Your task to perform on an android device: Empty the shopping cart on walmart. Image 0: 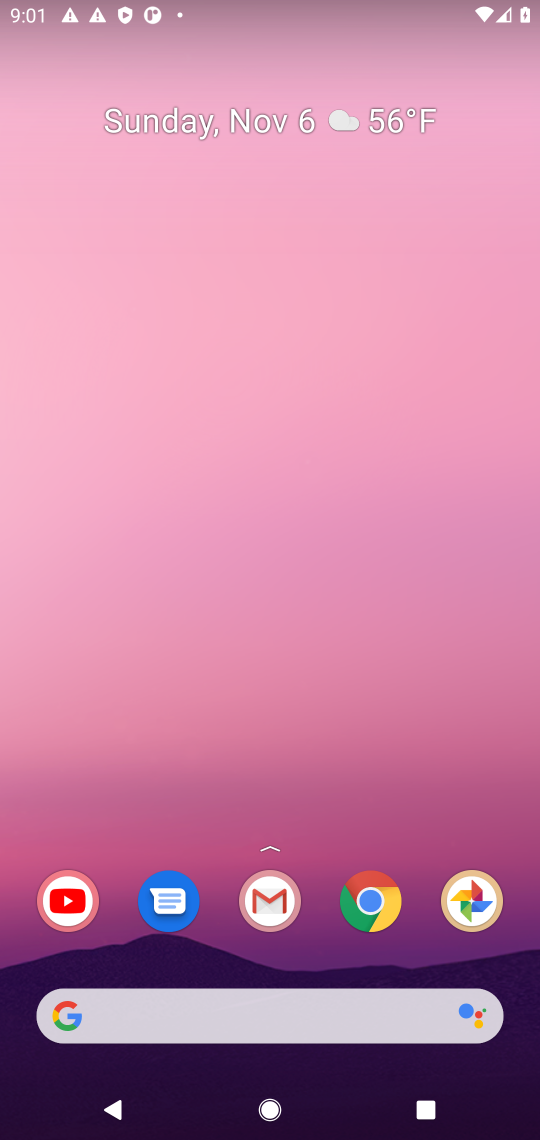
Step 0: click (367, 897)
Your task to perform on an android device: Empty the shopping cart on walmart. Image 1: 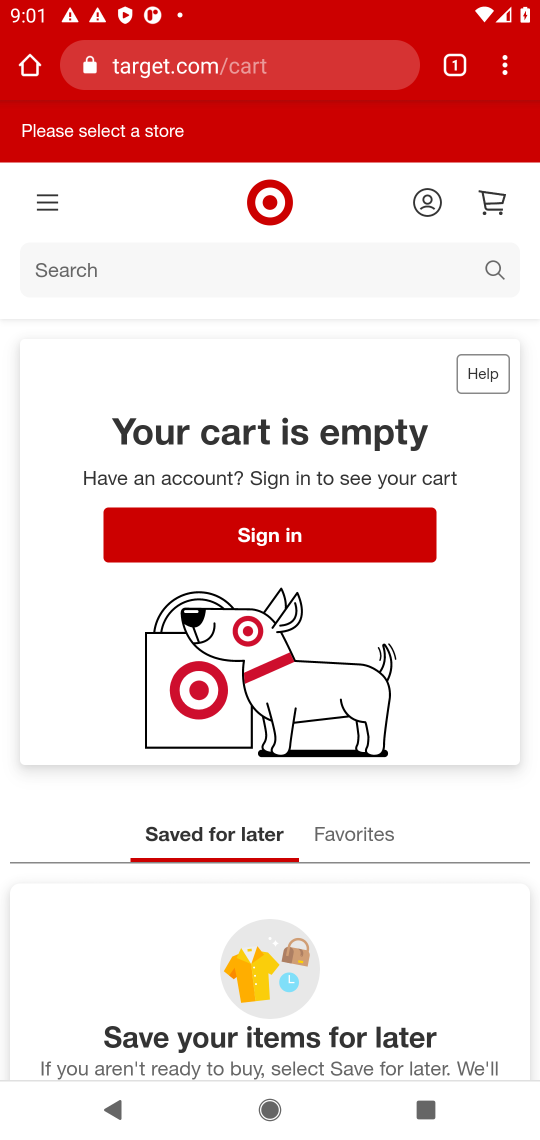
Step 1: click (279, 44)
Your task to perform on an android device: Empty the shopping cart on walmart. Image 2: 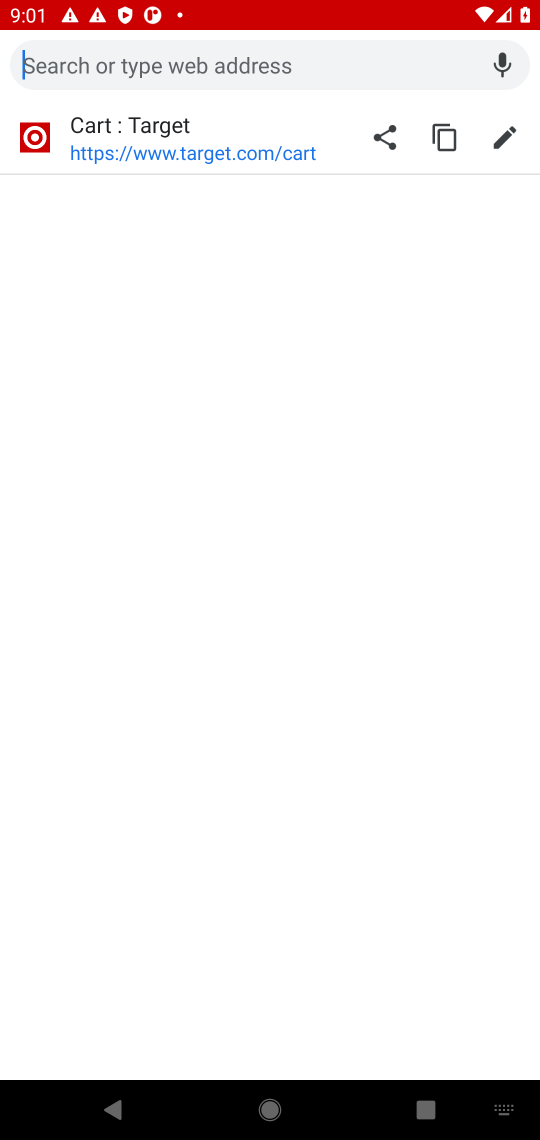
Step 2: type "walmart"
Your task to perform on an android device: Empty the shopping cart on walmart. Image 3: 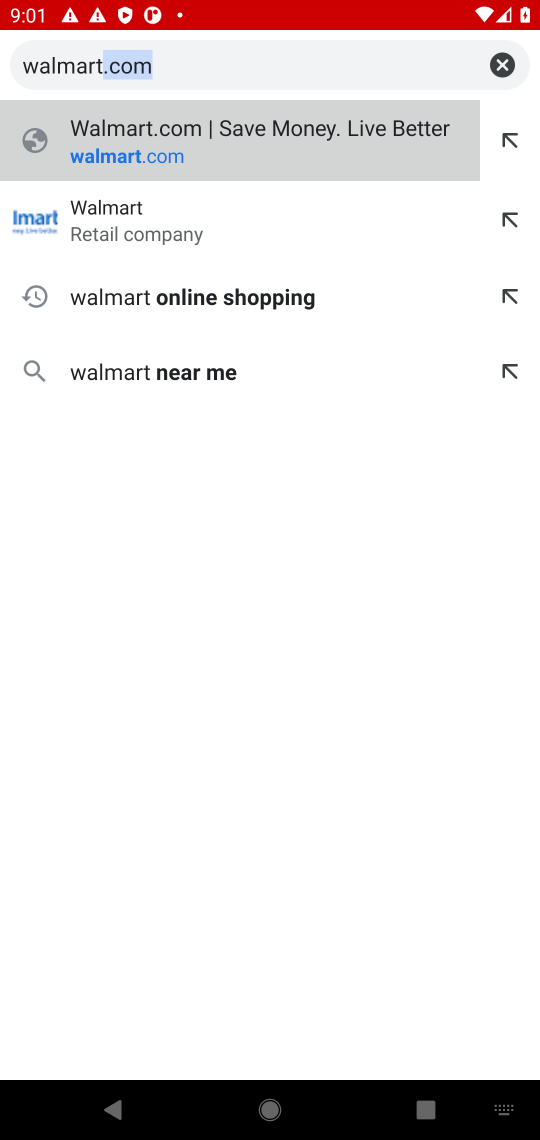
Step 3: click (114, 135)
Your task to perform on an android device: Empty the shopping cart on walmart. Image 4: 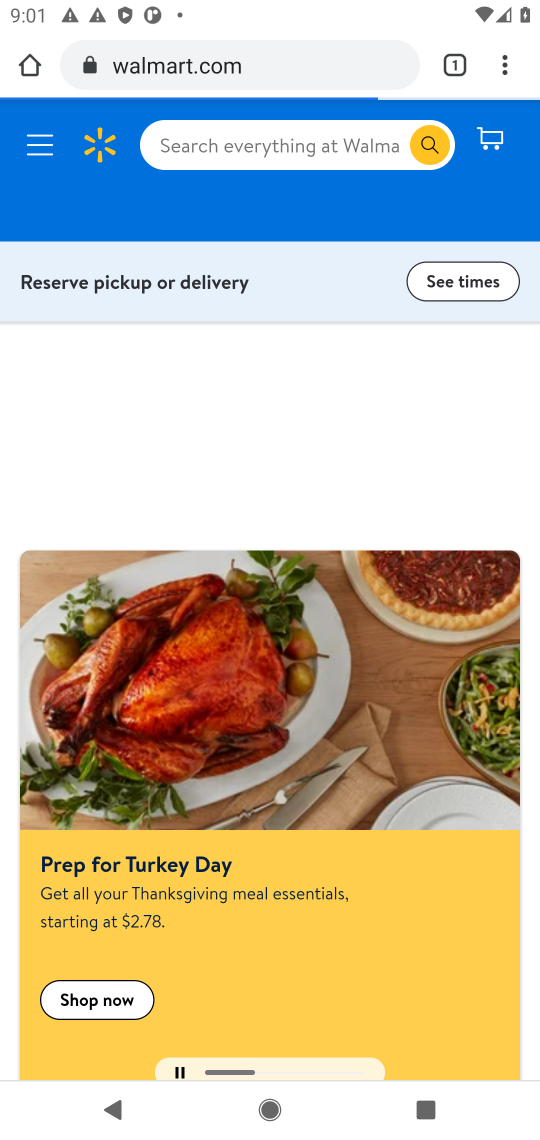
Step 4: click (487, 134)
Your task to perform on an android device: Empty the shopping cart on walmart. Image 5: 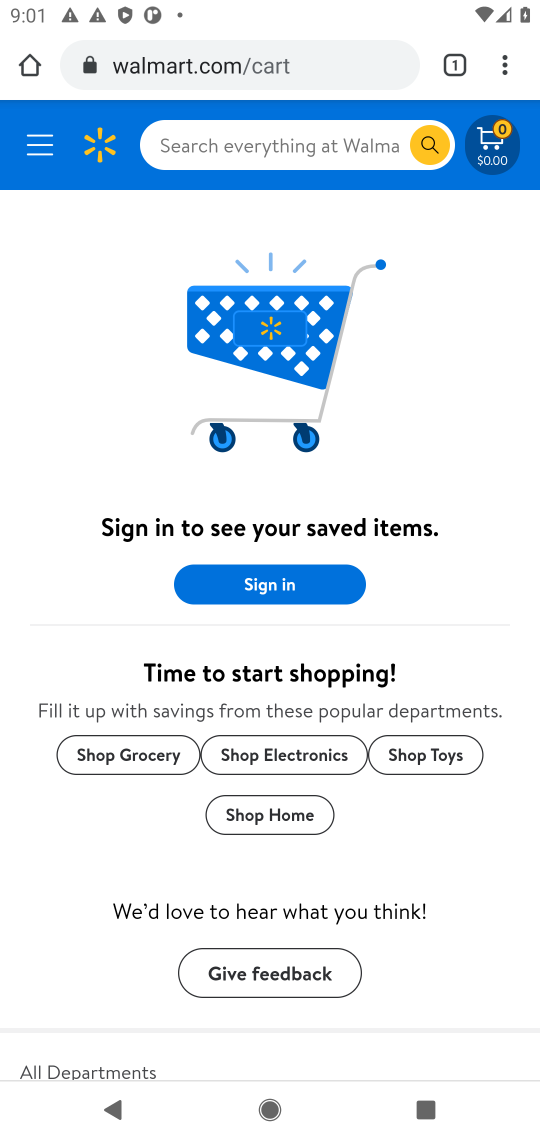
Step 5: task complete